Your task to perform on an android device: toggle notification dots Image 0: 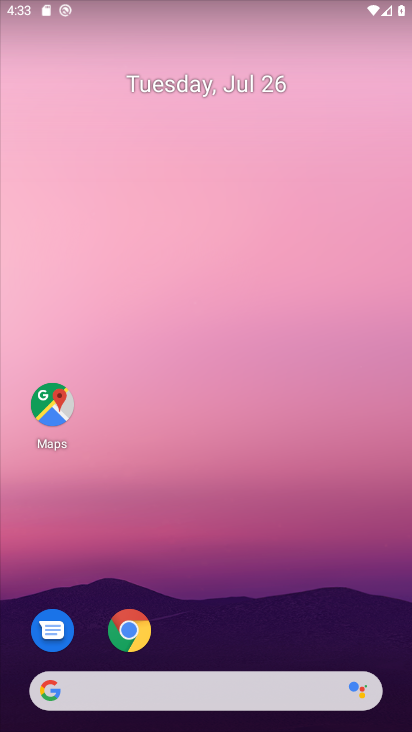
Step 0: drag from (274, 635) to (207, 81)
Your task to perform on an android device: toggle notification dots Image 1: 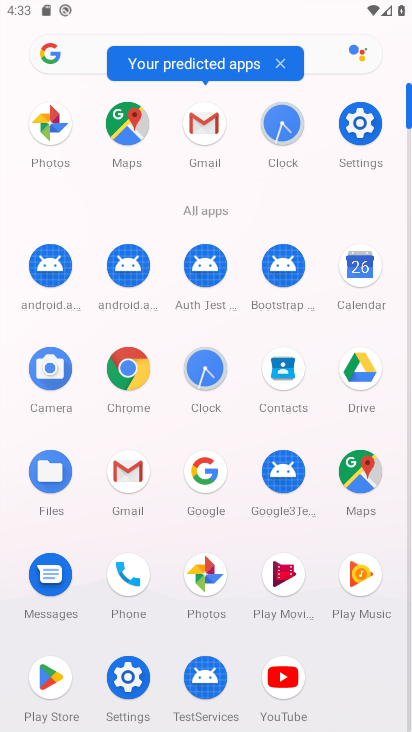
Step 1: click (364, 124)
Your task to perform on an android device: toggle notification dots Image 2: 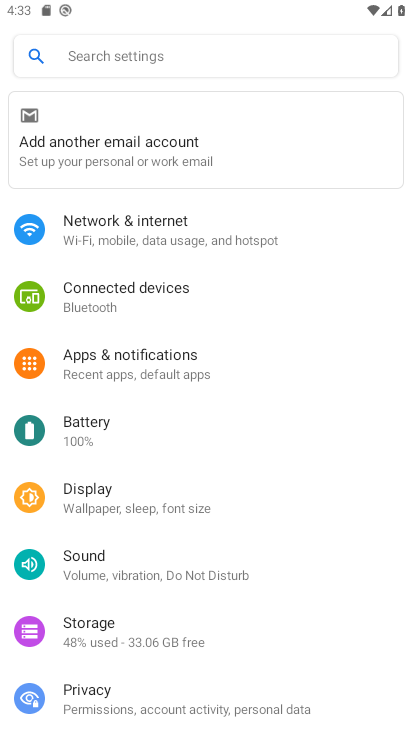
Step 2: click (244, 361)
Your task to perform on an android device: toggle notification dots Image 3: 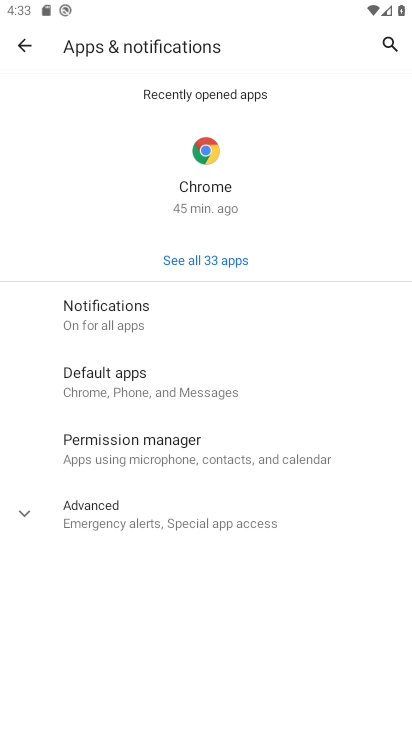
Step 3: click (175, 304)
Your task to perform on an android device: toggle notification dots Image 4: 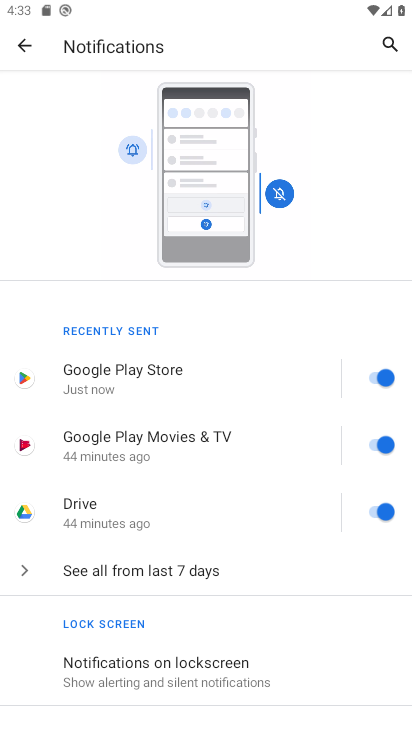
Step 4: drag from (280, 629) to (246, 255)
Your task to perform on an android device: toggle notification dots Image 5: 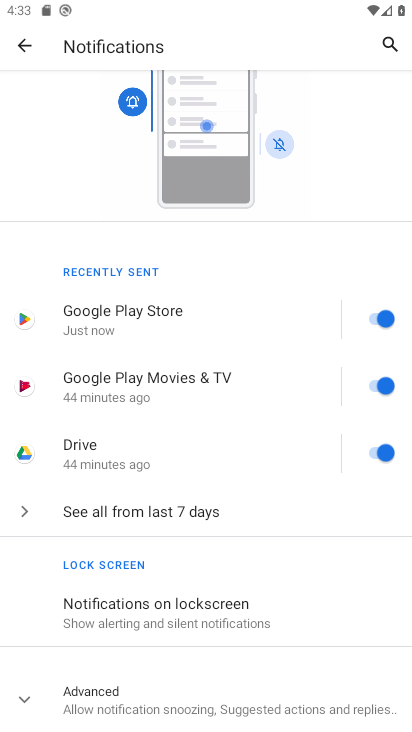
Step 5: click (272, 705)
Your task to perform on an android device: toggle notification dots Image 6: 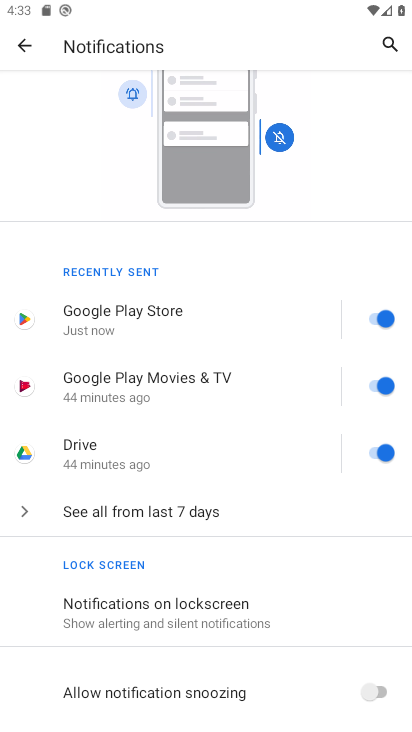
Step 6: drag from (275, 565) to (226, 126)
Your task to perform on an android device: toggle notification dots Image 7: 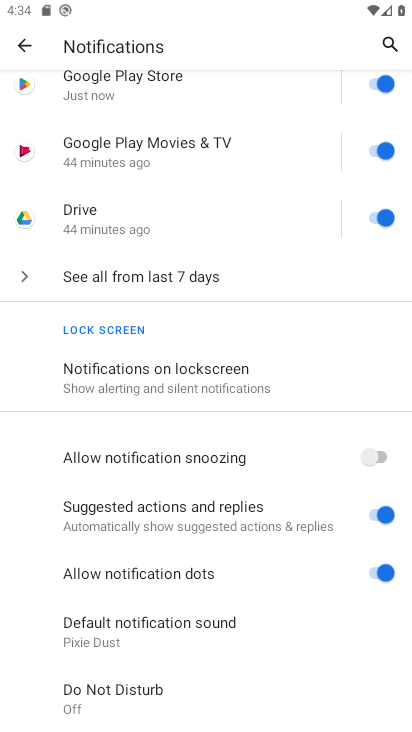
Step 7: click (389, 579)
Your task to perform on an android device: toggle notification dots Image 8: 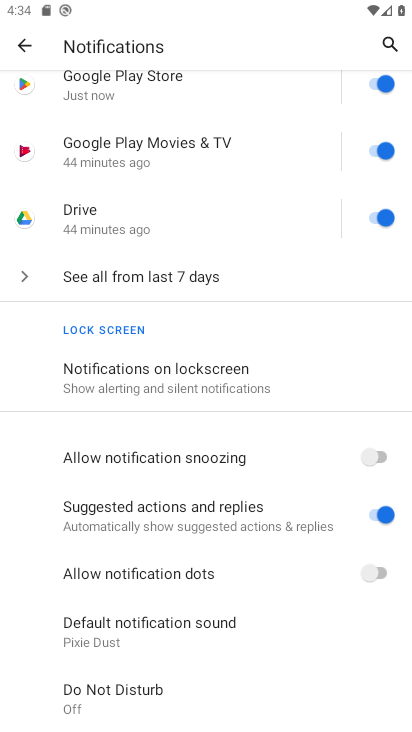
Step 8: task complete